Your task to perform on an android device: check storage Image 0: 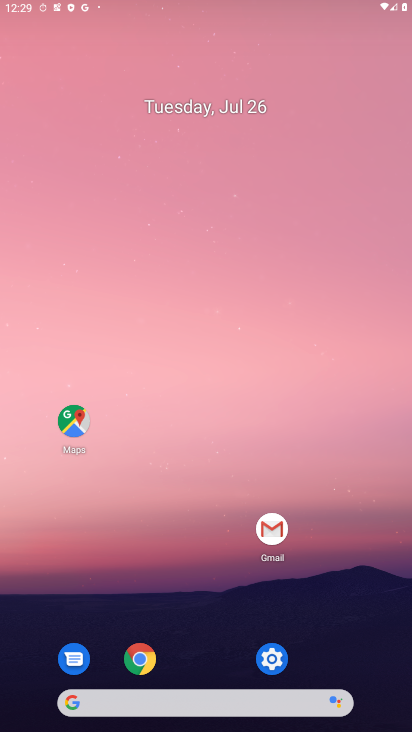
Step 0: click (141, 659)
Your task to perform on an android device: check storage Image 1: 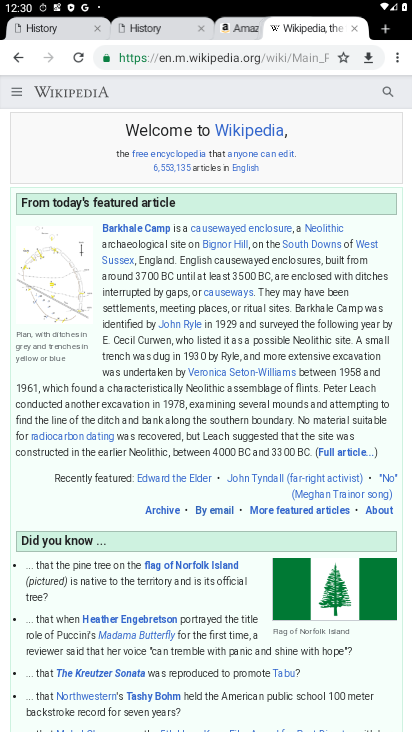
Step 1: press home button
Your task to perform on an android device: check storage Image 2: 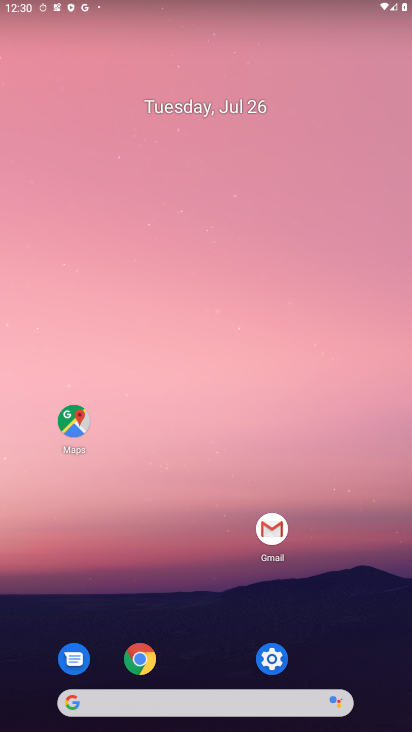
Step 2: click (276, 670)
Your task to perform on an android device: check storage Image 3: 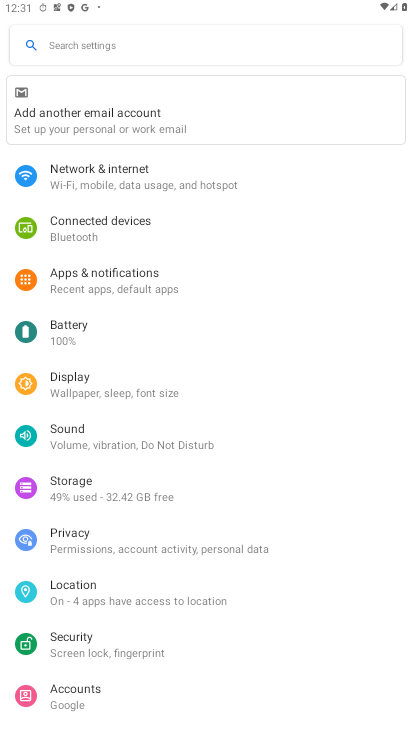
Step 3: click (110, 44)
Your task to perform on an android device: check storage Image 4: 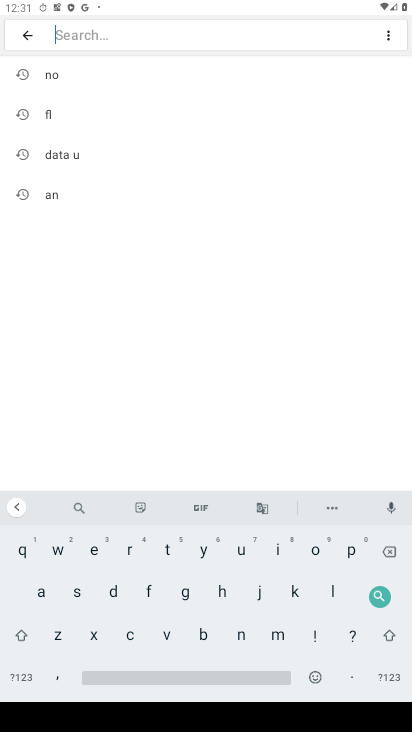
Step 4: click (77, 596)
Your task to perform on an android device: check storage Image 5: 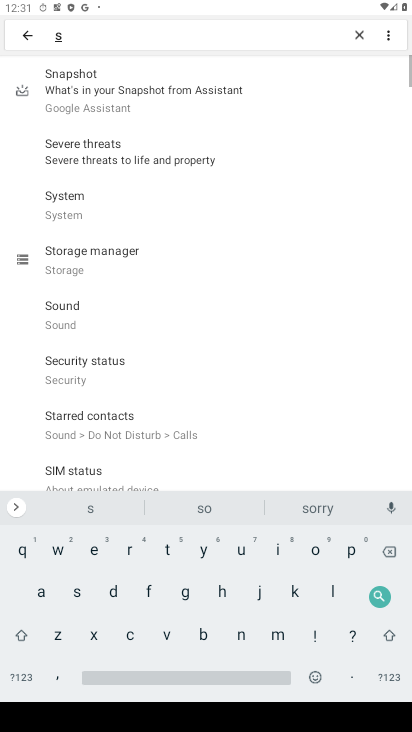
Step 5: click (165, 550)
Your task to perform on an android device: check storage Image 6: 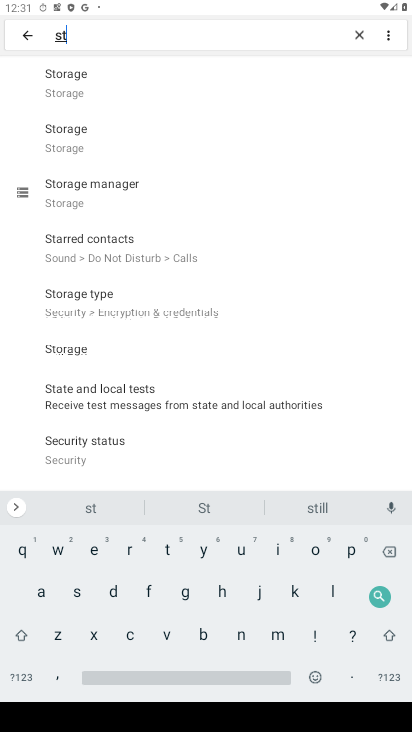
Step 6: click (94, 82)
Your task to perform on an android device: check storage Image 7: 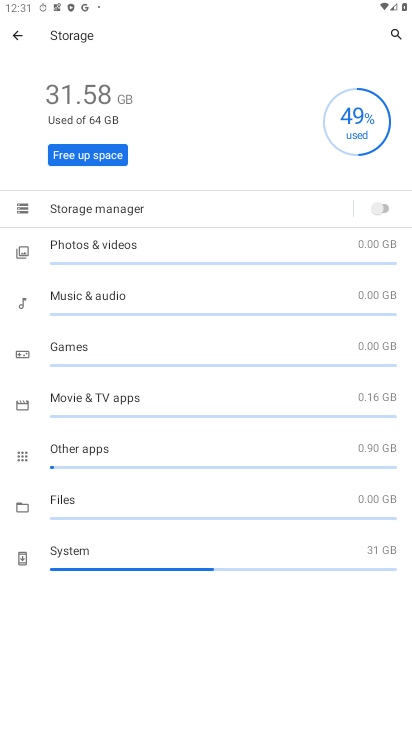
Step 7: task complete